Your task to perform on an android device: toggle improve location accuracy Image 0: 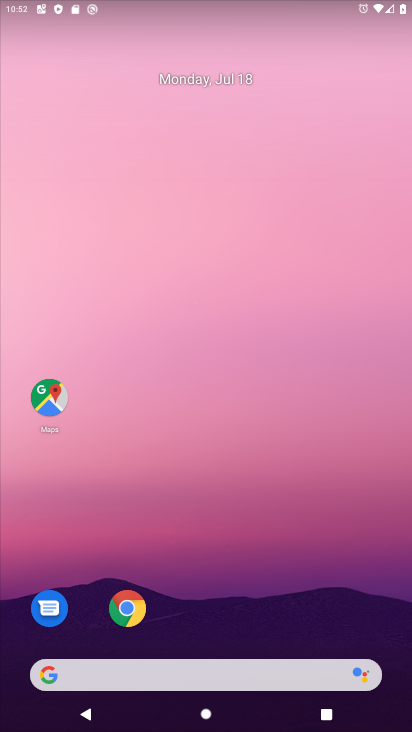
Step 0: drag from (233, 625) to (279, 156)
Your task to perform on an android device: toggle improve location accuracy Image 1: 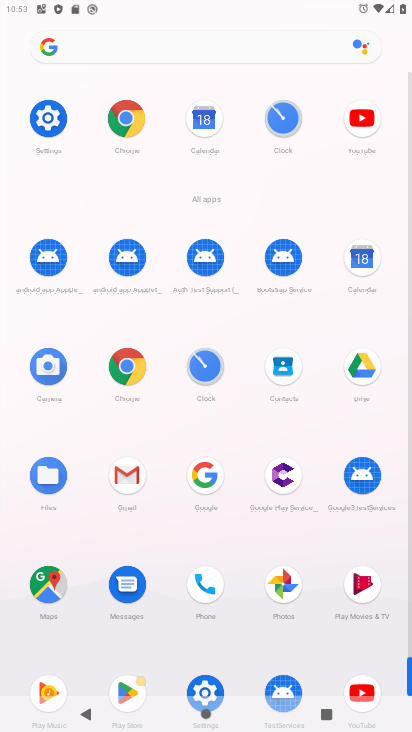
Step 1: click (207, 685)
Your task to perform on an android device: toggle improve location accuracy Image 2: 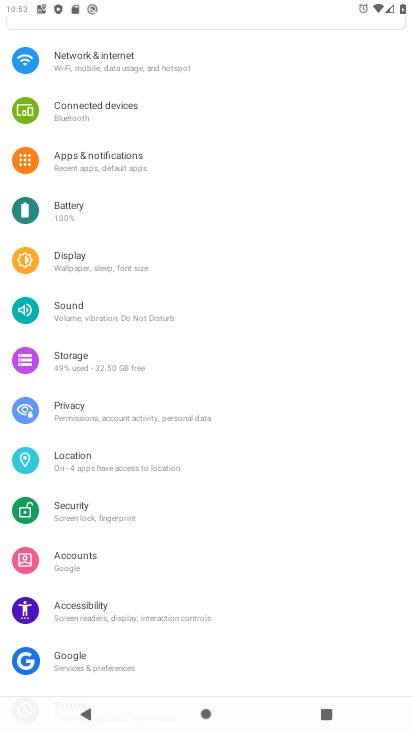
Step 2: click (90, 465)
Your task to perform on an android device: toggle improve location accuracy Image 3: 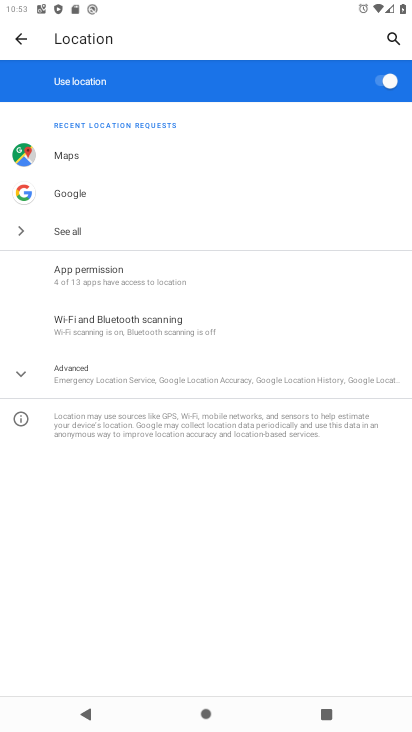
Step 3: click (117, 373)
Your task to perform on an android device: toggle improve location accuracy Image 4: 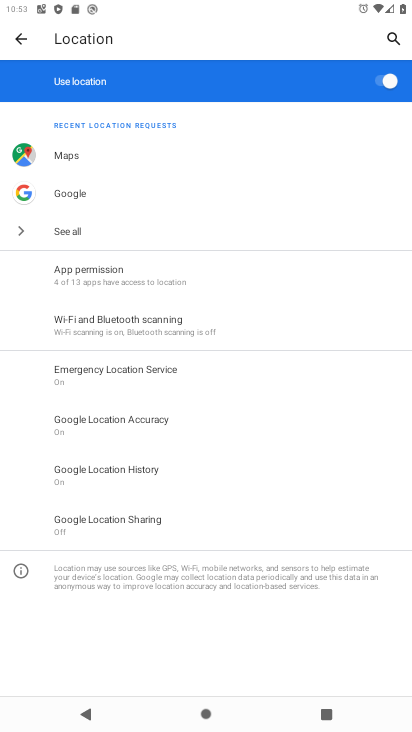
Step 4: click (157, 427)
Your task to perform on an android device: toggle improve location accuracy Image 5: 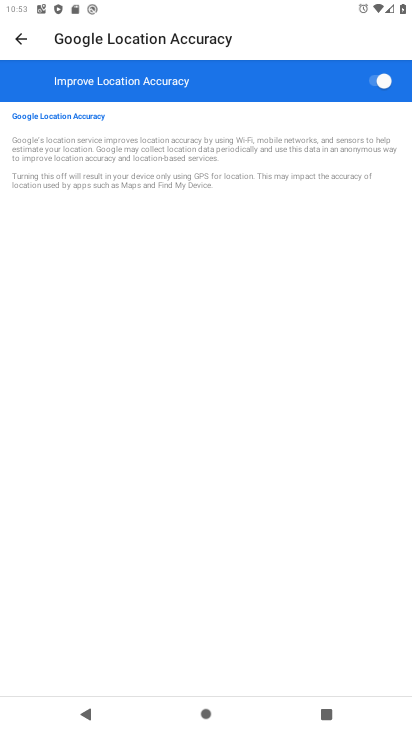
Step 5: click (363, 82)
Your task to perform on an android device: toggle improve location accuracy Image 6: 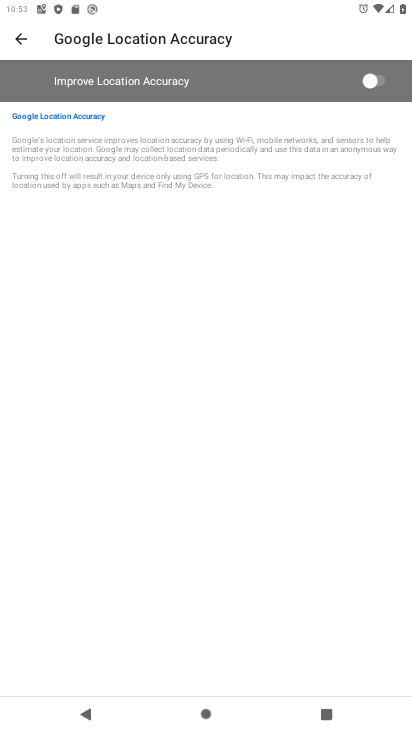
Step 6: task complete